Your task to perform on an android device: Go to Reddit.com Image 0: 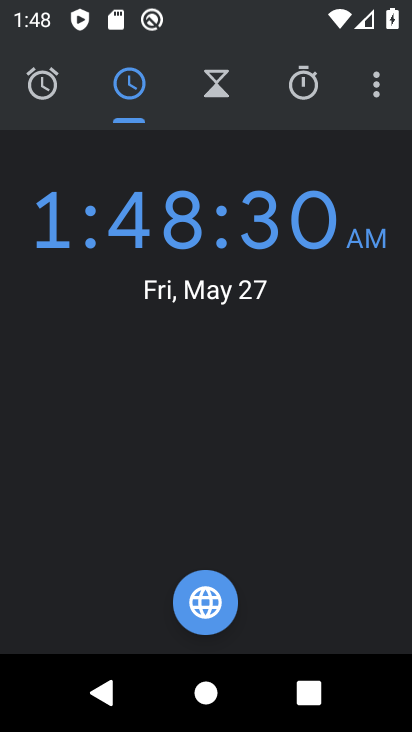
Step 0: press home button
Your task to perform on an android device: Go to Reddit.com Image 1: 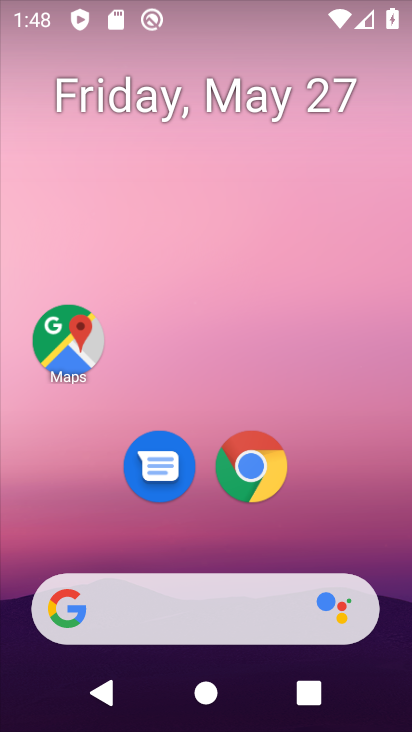
Step 1: click (248, 480)
Your task to perform on an android device: Go to Reddit.com Image 2: 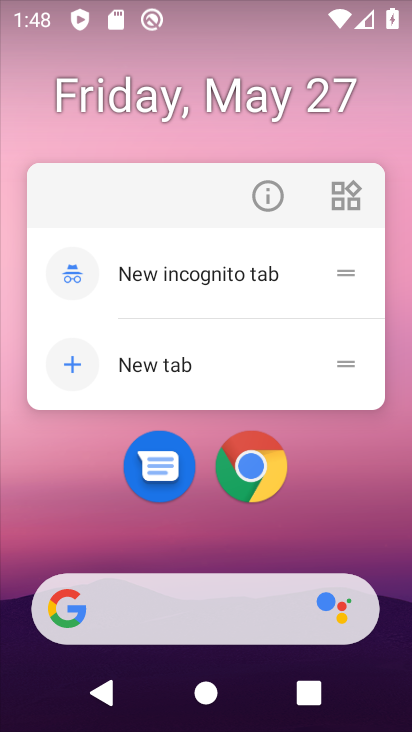
Step 2: click (248, 480)
Your task to perform on an android device: Go to Reddit.com Image 3: 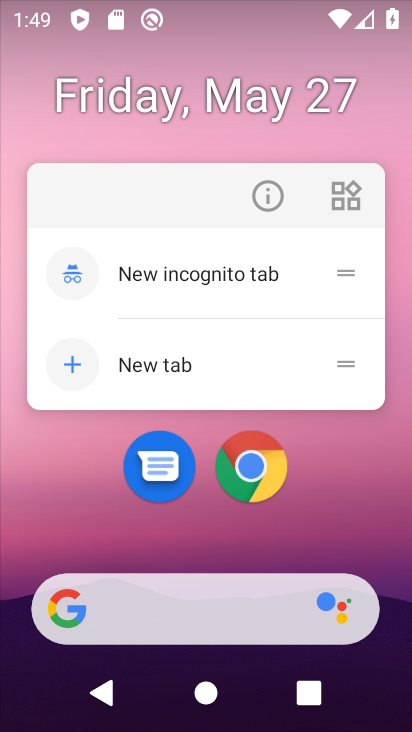
Step 3: click (256, 471)
Your task to perform on an android device: Go to Reddit.com Image 4: 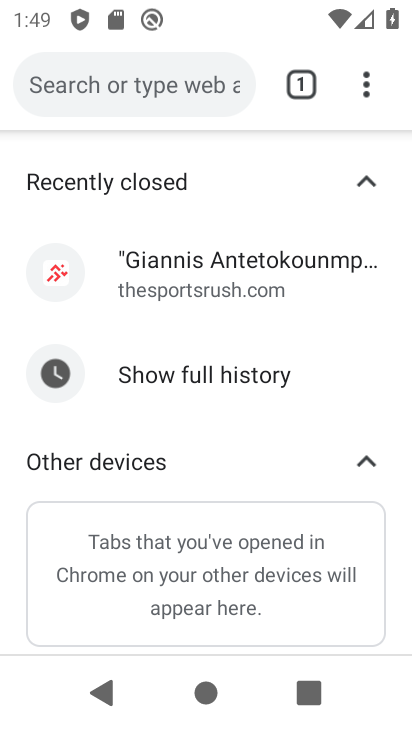
Step 4: click (199, 100)
Your task to perform on an android device: Go to Reddit.com Image 5: 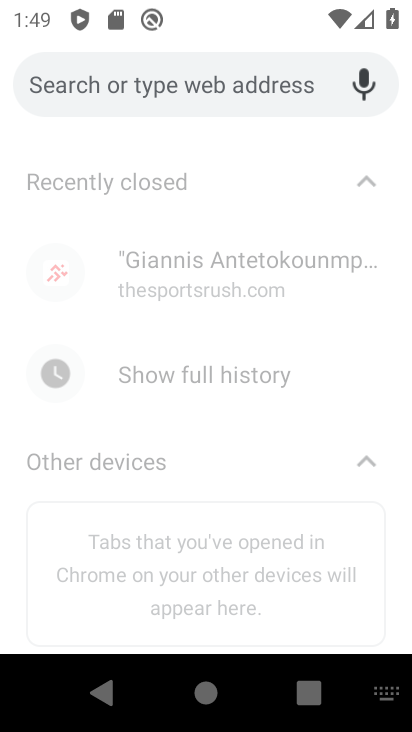
Step 5: type "reddit"
Your task to perform on an android device: Go to Reddit.com Image 6: 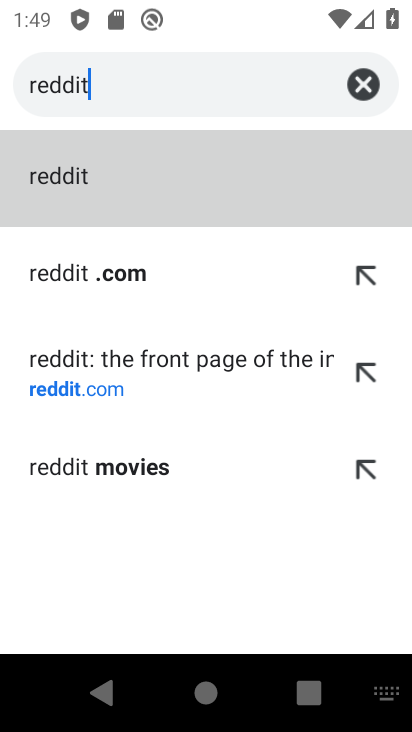
Step 6: click (57, 342)
Your task to perform on an android device: Go to Reddit.com Image 7: 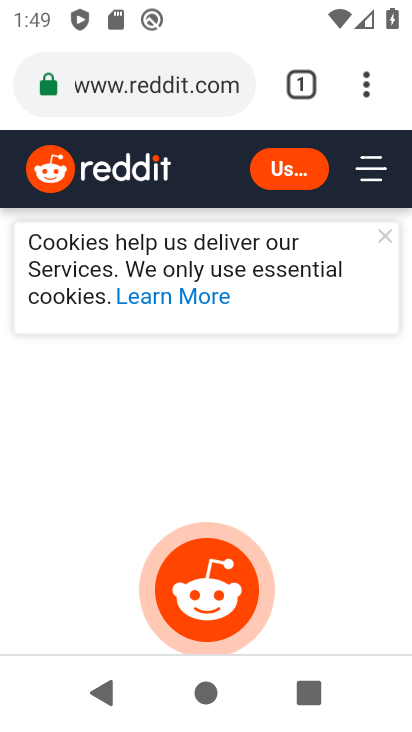
Step 7: task complete